Your task to perform on an android device: Is it going to rain tomorrow? Image 0: 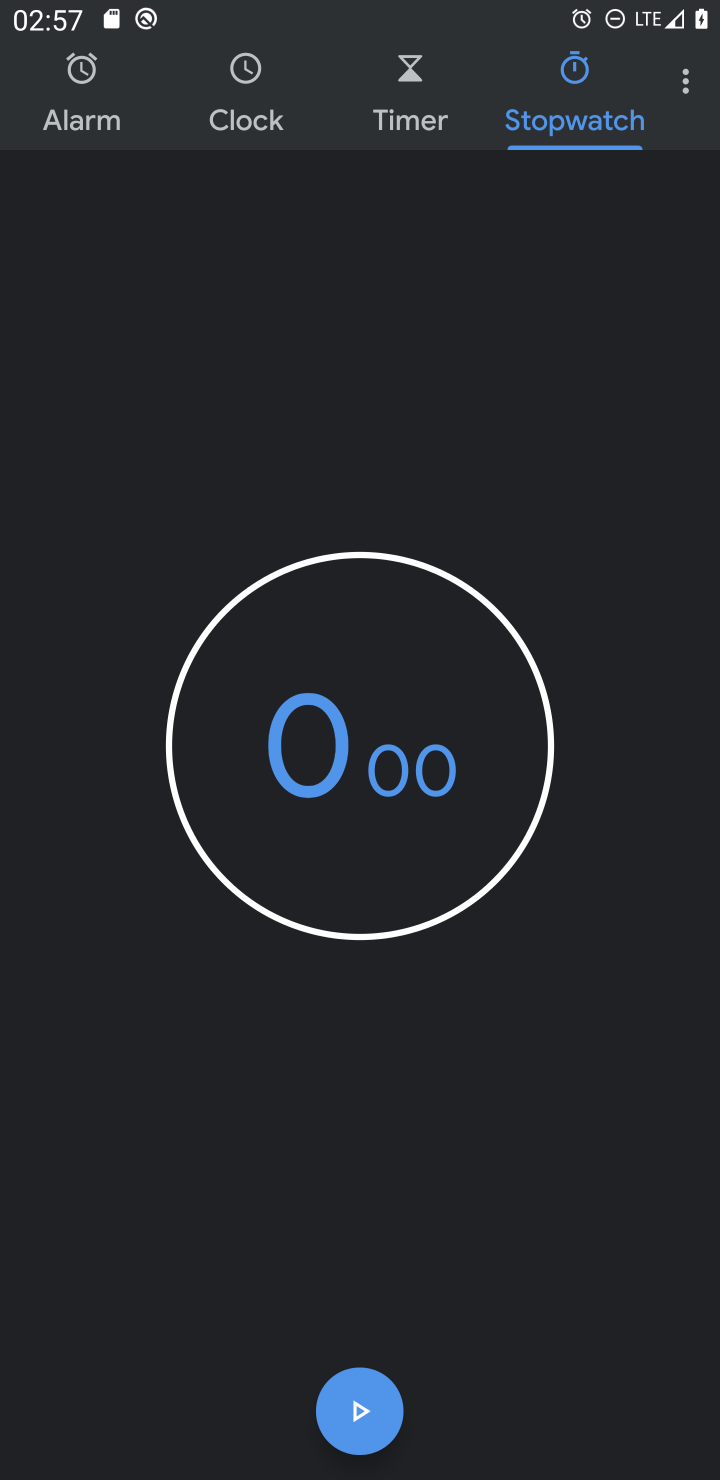
Step 0: press home button
Your task to perform on an android device: Is it going to rain tomorrow? Image 1: 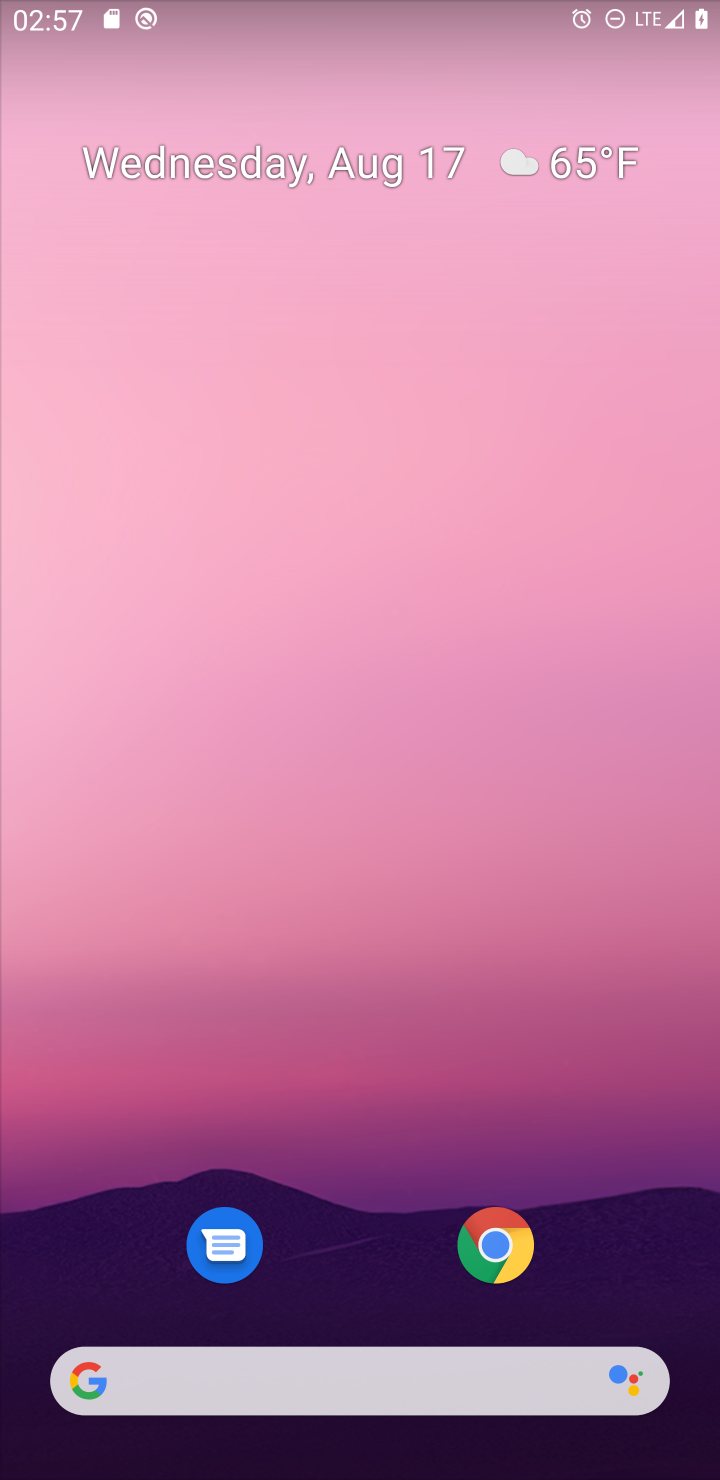
Step 1: drag from (323, 1249) to (337, 471)
Your task to perform on an android device: Is it going to rain tomorrow? Image 2: 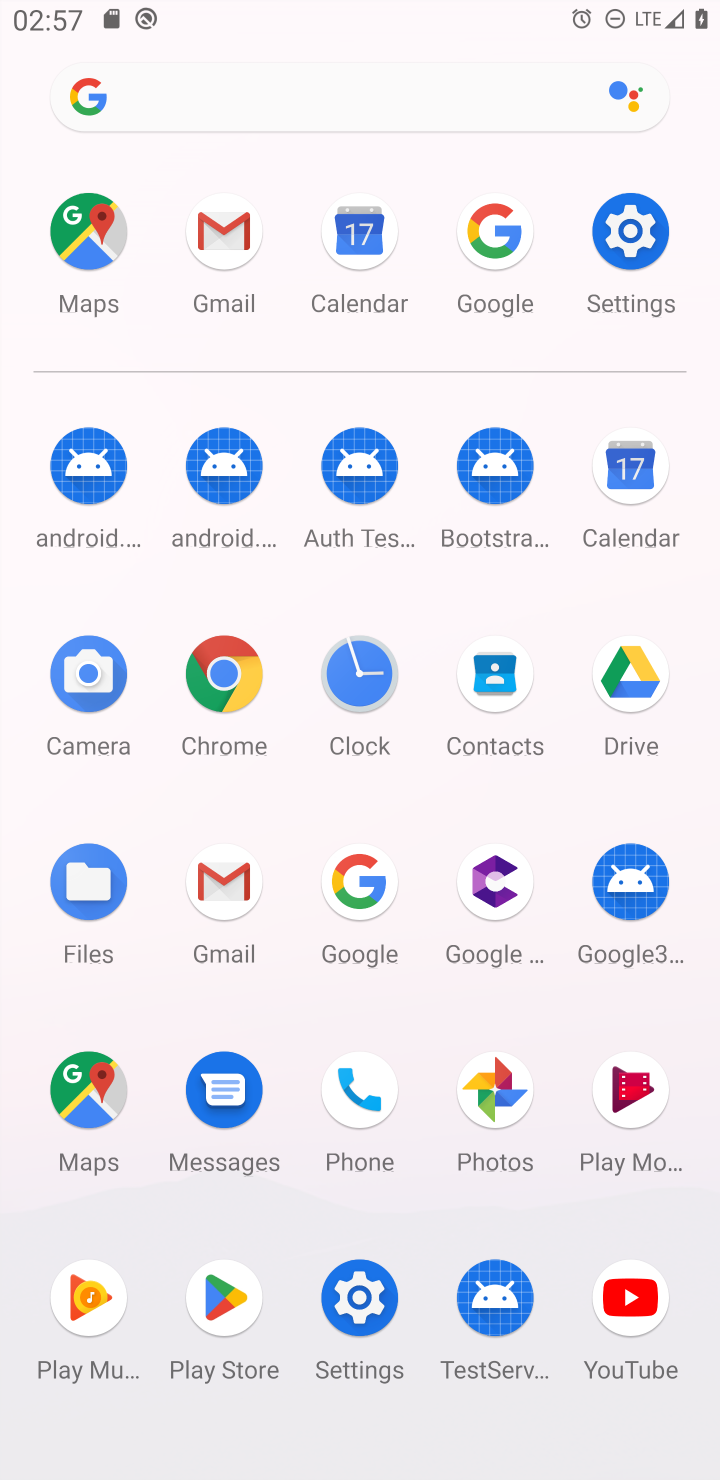
Step 2: click (359, 884)
Your task to perform on an android device: Is it going to rain tomorrow? Image 3: 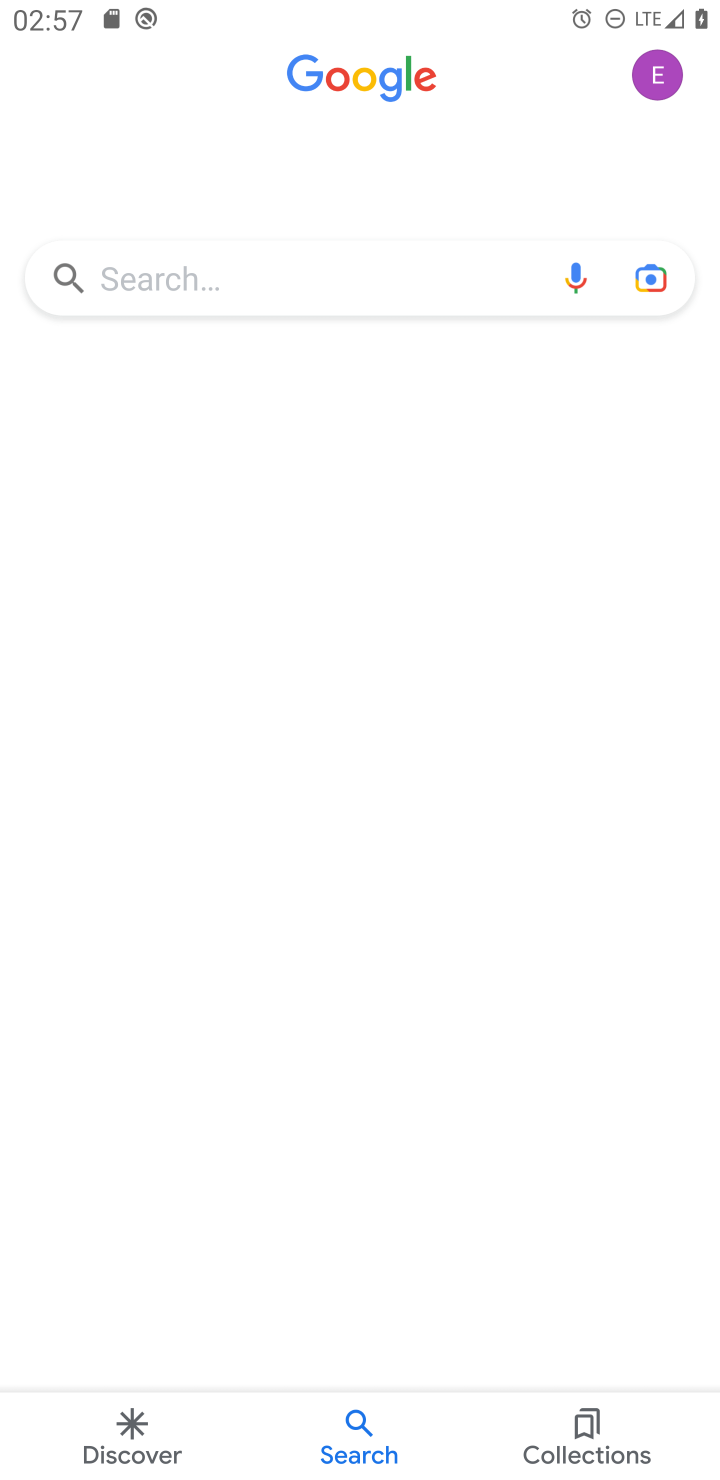
Step 3: click (299, 279)
Your task to perform on an android device: Is it going to rain tomorrow? Image 4: 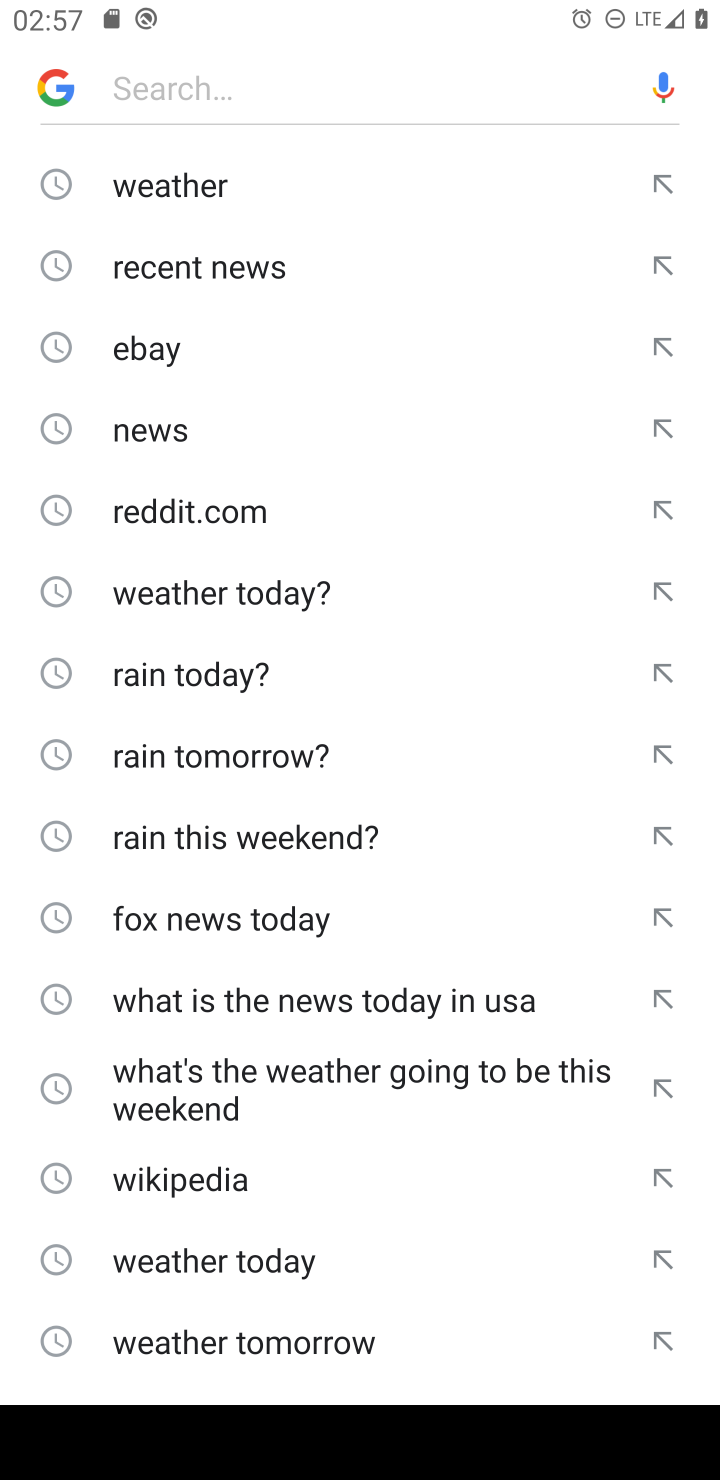
Step 4: click (167, 175)
Your task to perform on an android device: Is it going to rain tomorrow? Image 5: 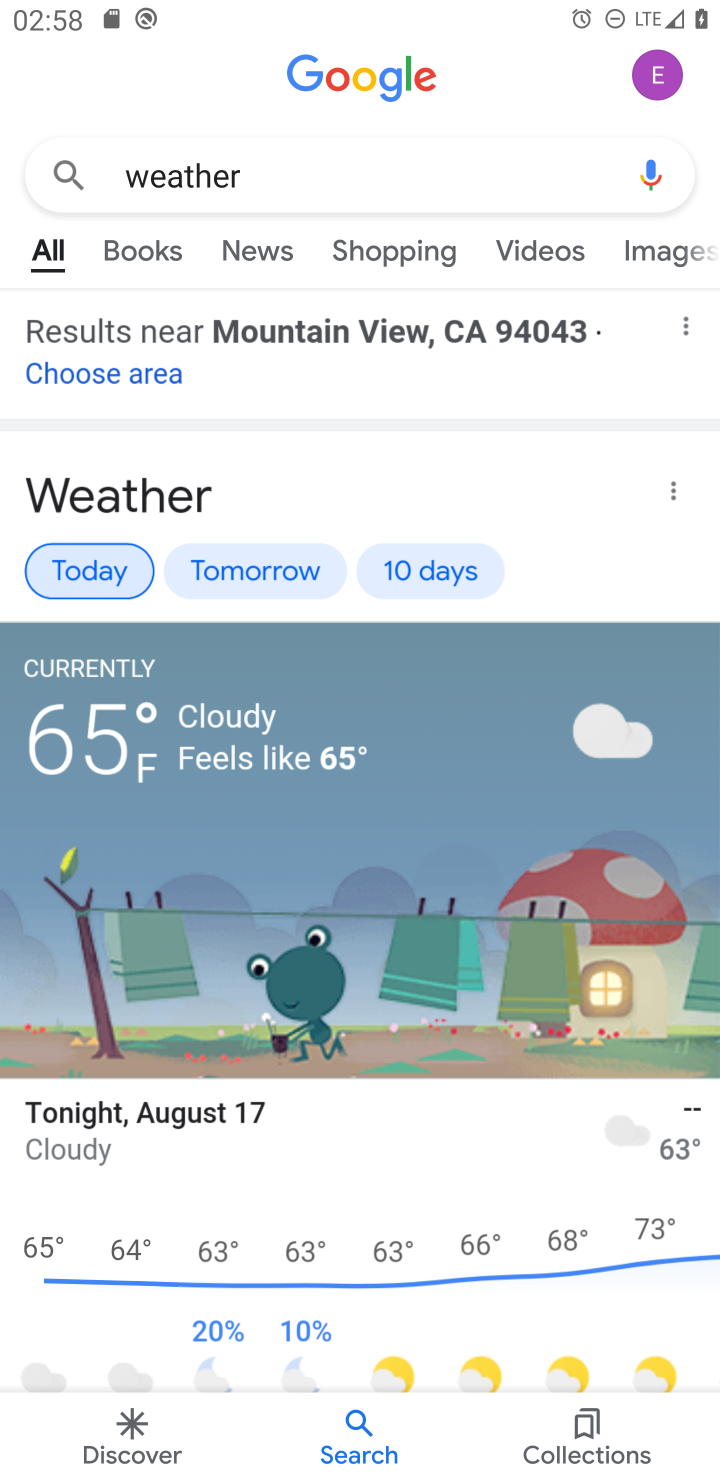
Step 5: click (267, 563)
Your task to perform on an android device: Is it going to rain tomorrow? Image 6: 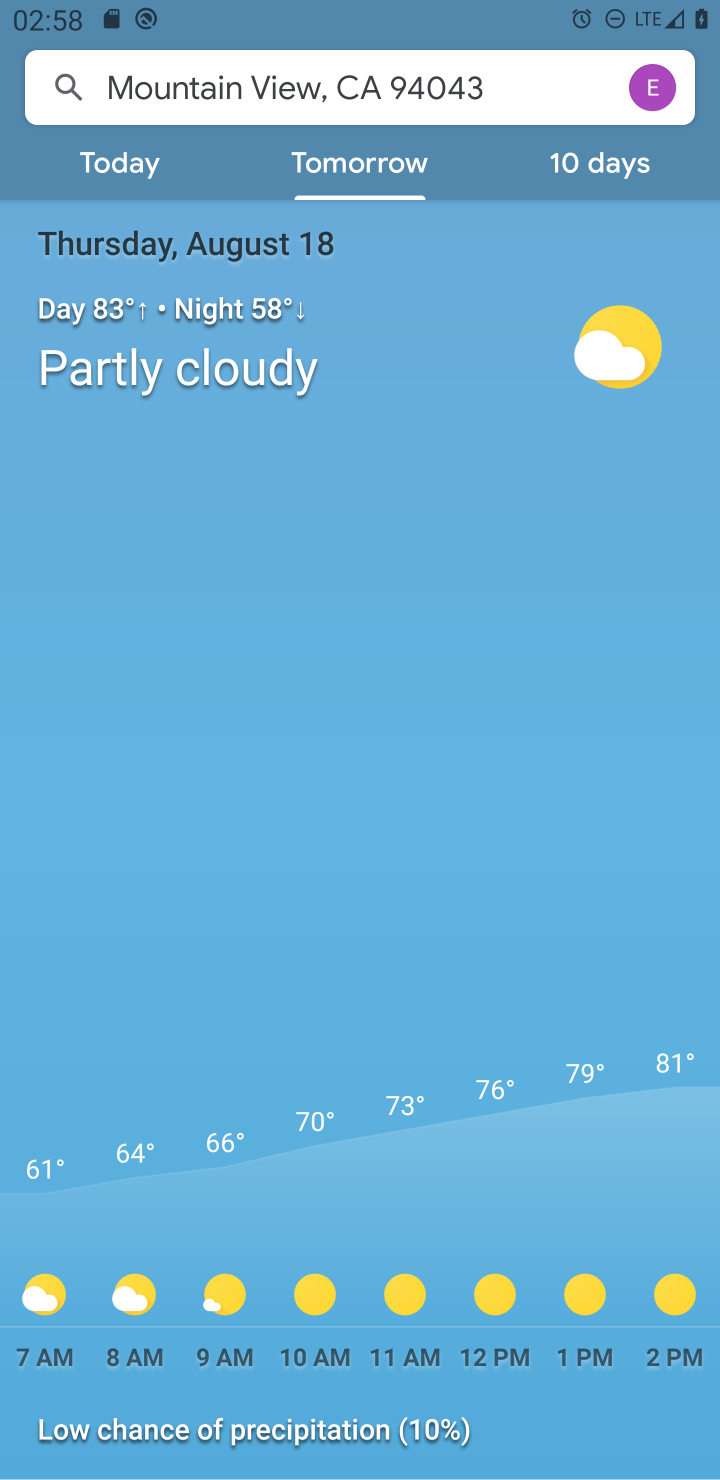
Step 6: task complete